Your task to perform on an android device: Go to Reddit.com Image 0: 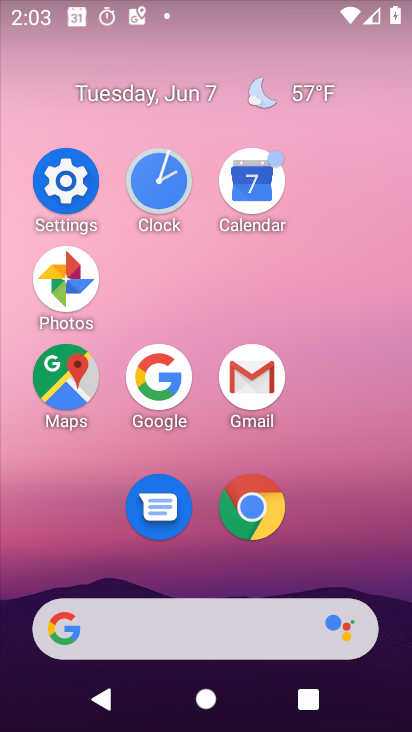
Step 0: click (143, 374)
Your task to perform on an android device: Go to Reddit.com Image 1: 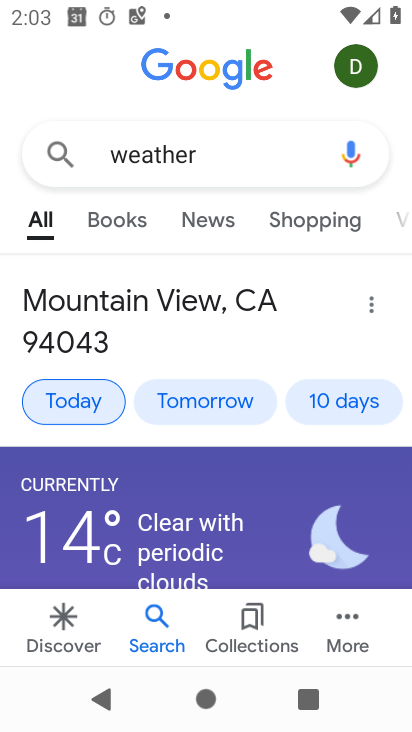
Step 1: click (273, 167)
Your task to perform on an android device: Go to Reddit.com Image 2: 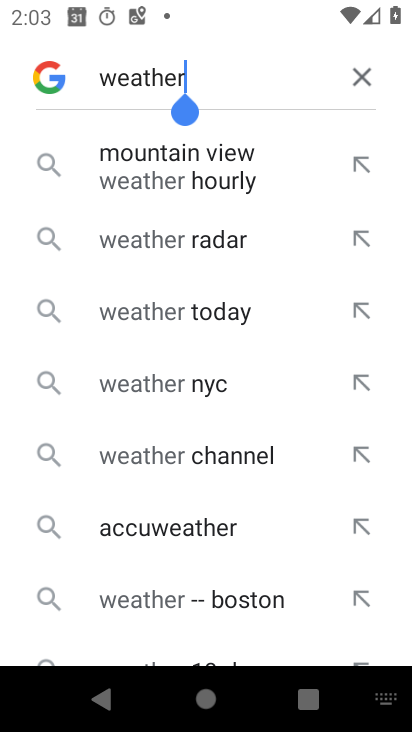
Step 2: click (371, 90)
Your task to perform on an android device: Go to Reddit.com Image 3: 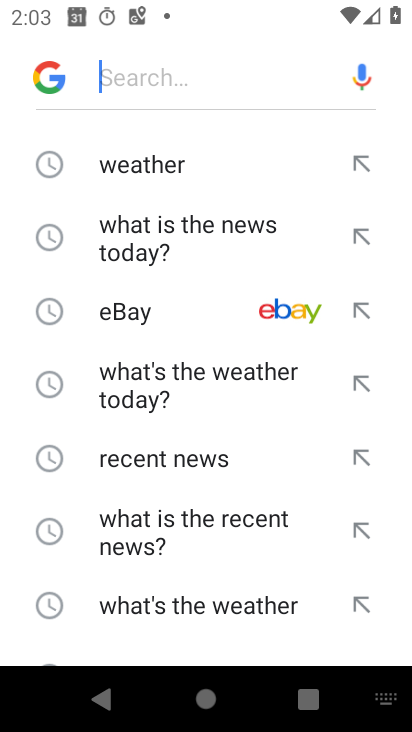
Step 3: drag from (202, 537) to (250, 150)
Your task to perform on an android device: Go to Reddit.com Image 4: 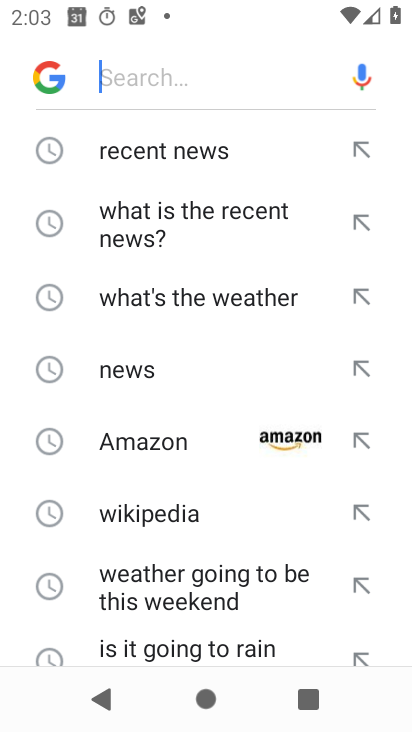
Step 4: drag from (213, 454) to (247, 188)
Your task to perform on an android device: Go to Reddit.com Image 5: 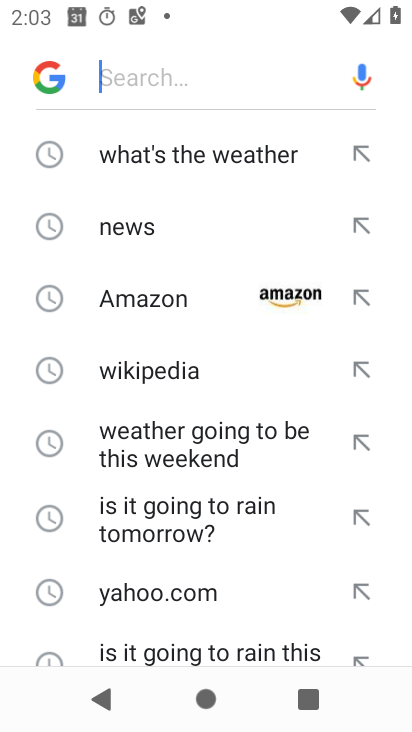
Step 5: drag from (196, 517) to (240, 172)
Your task to perform on an android device: Go to Reddit.com Image 6: 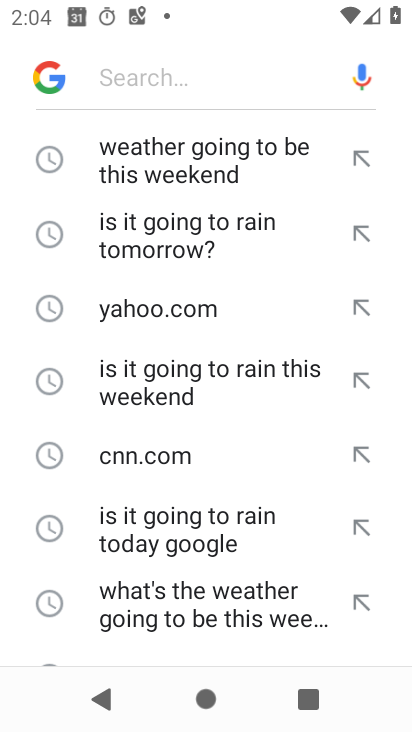
Step 6: type "reddit"
Your task to perform on an android device: Go to Reddit.com Image 7: 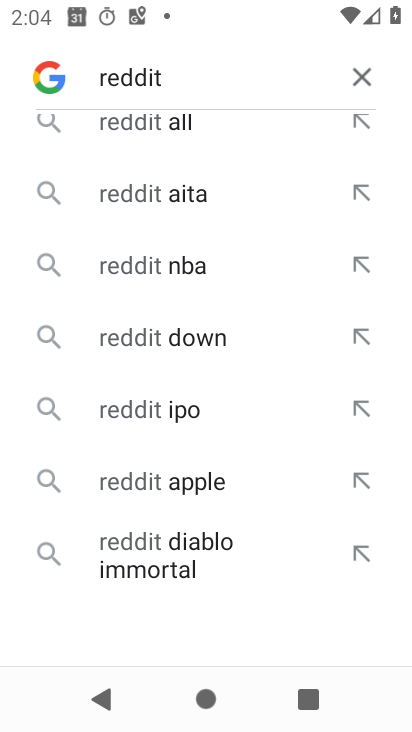
Step 7: drag from (196, 140) to (225, 566)
Your task to perform on an android device: Go to Reddit.com Image 8: 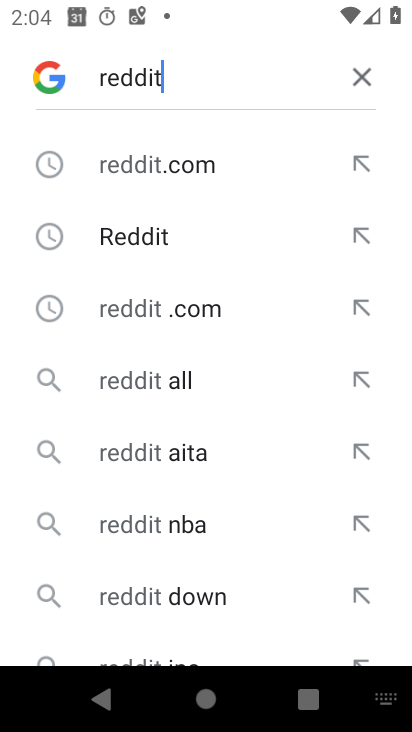
Step 8: click (172, 157)
Your task to perform on an android device: Go to Reddit.com Image 9: 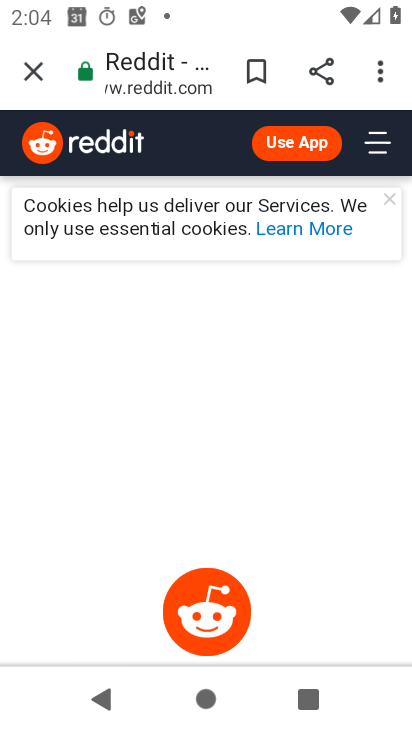
Step 9: task complete